Your task to perform on an android device: Go to notification settings Image 0: 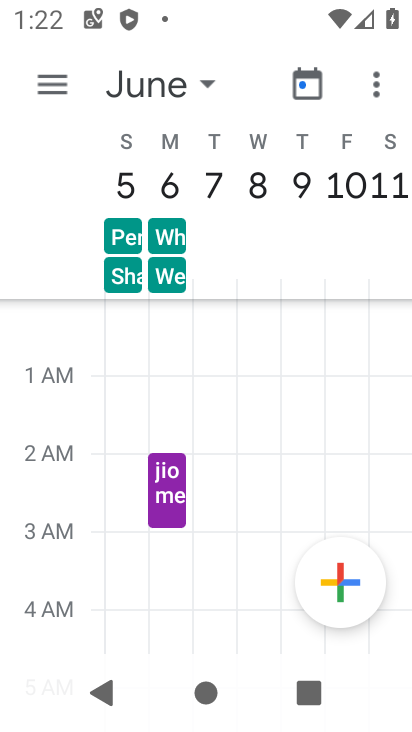
Step 0: press home button
Your task to perform on an android device: Go to notification settings Image 1: 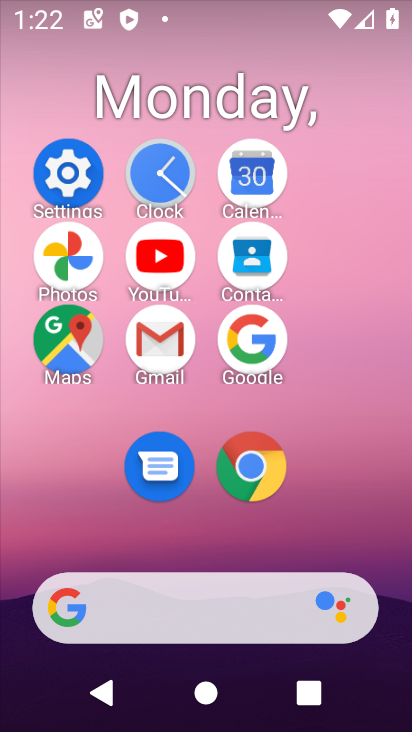
Step 1: click (81, 171)
Your task to perform on an android device: Go to notification settings Image 2: 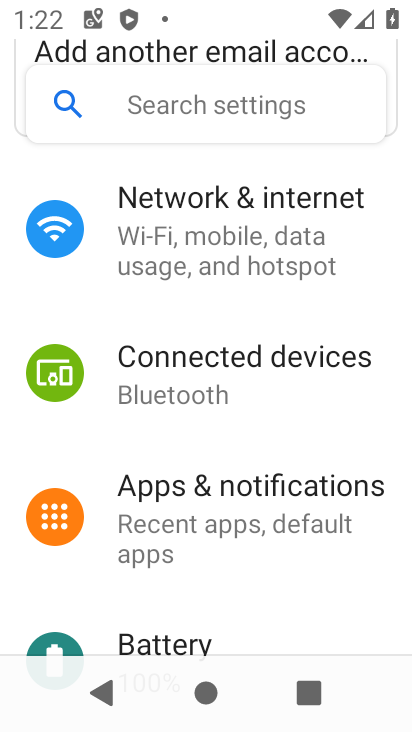
Step 2: click (296, 508)
Your task to perform on an android device: Go to notification settings Image 3: 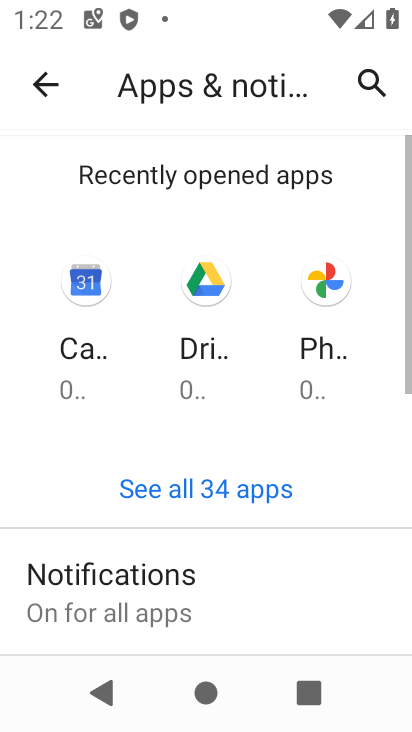
Step 3: task complete